Your task to perform on an android device: Search for Mexican restaurants on Maps Image 0: 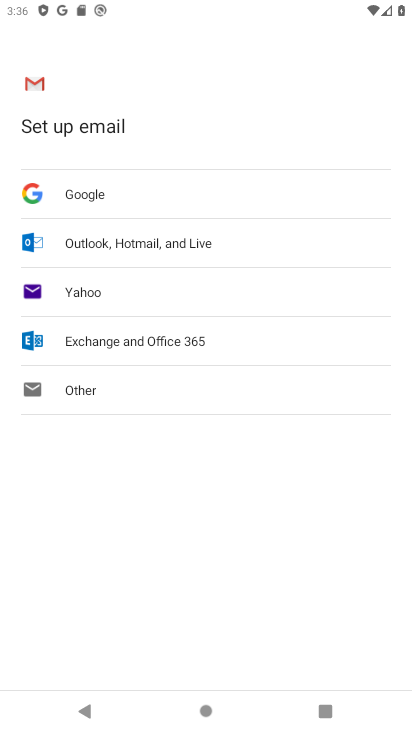
Step 0: press home button
Your task to perform on an android device: Search for Mexican restaurants on Maps Image 1: 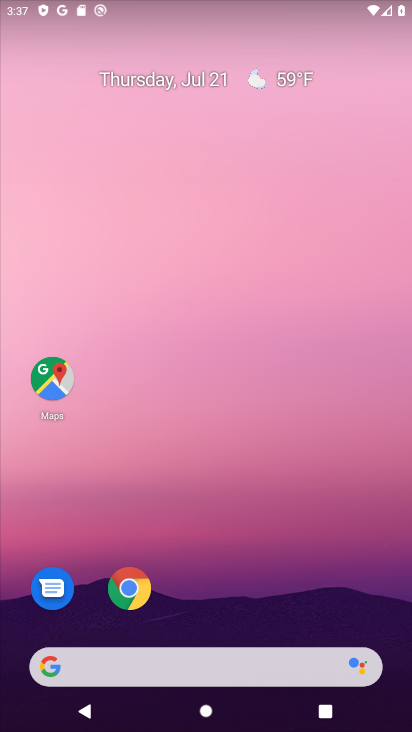
Step 1: drag from (232, 720) to (221, 88)
Your task to perform on an android device: Search for Mexican restaurants on Maps Image 2: 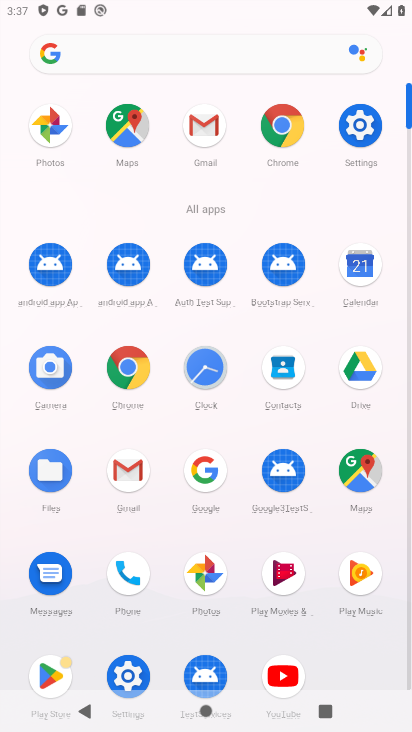
Step 2: click (361, 465)
Your task to perform on an android device: Search for Mexican restaurants on Maps Image 3: 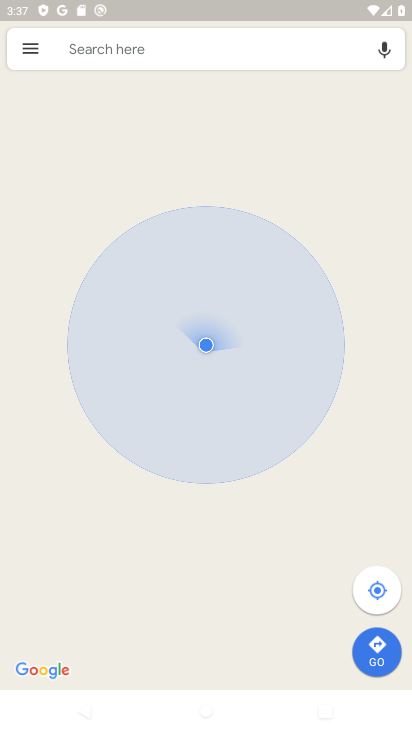
Step 3: click (115, 51)
Your task to perform on an android device: Search for Mexican restaurants on Maps Image 4: 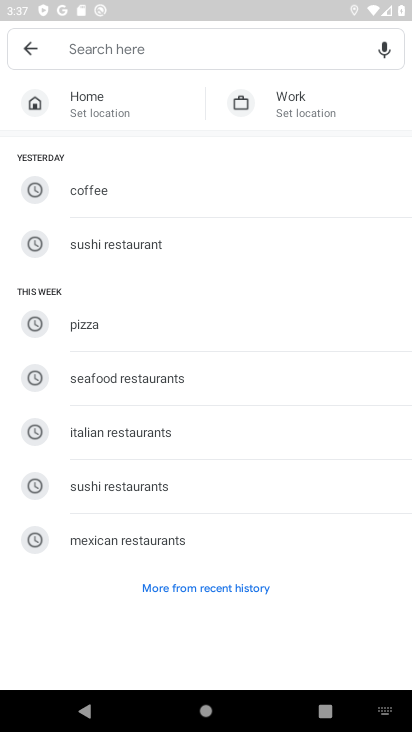
Step 4: type "Mexican restaurants"
Your task to perform on an android device: Search for Mexican restaurants on Maps Image 5: 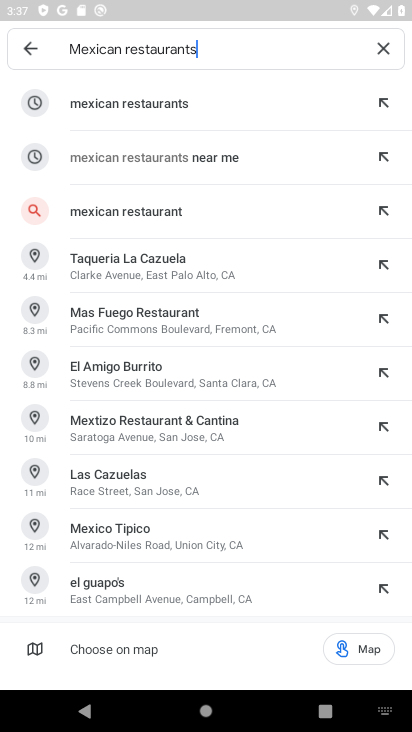
Step 5: click (168, 104)
Your task to perform on an android device: Search for Mexican restaurants on Maps Image 6: 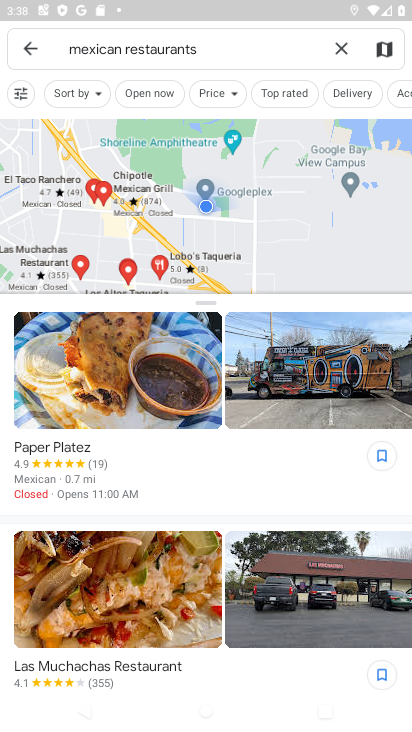
Step 6: task complete